Your task to perform on an android device: turn notification dots on Image 0: 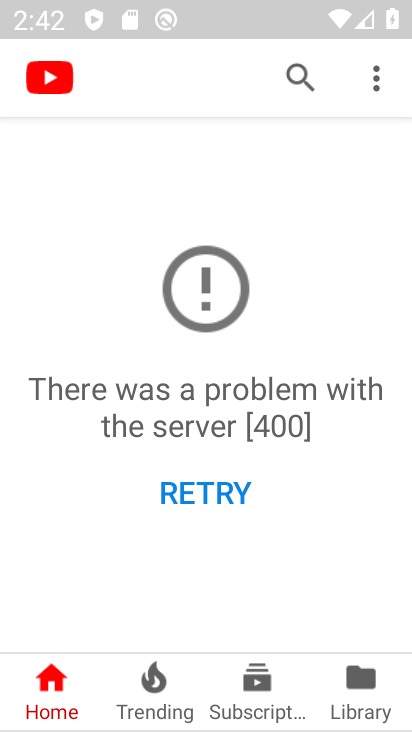
Step 0: press home button
Your task to perform on an android device: turn notification dots on Image 1: 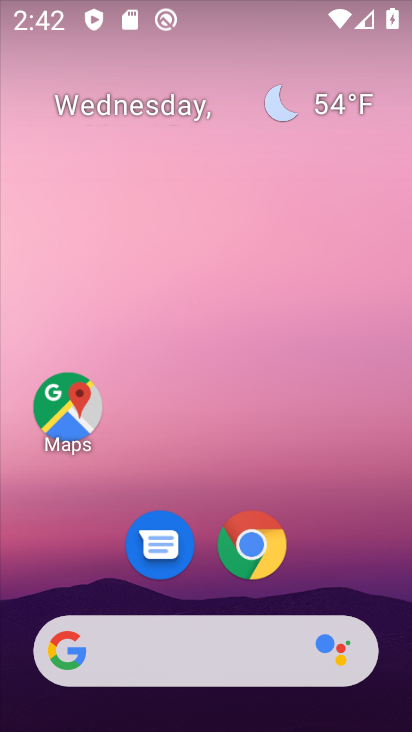
Step 1: drag from (256, 718) to (286, 209)
Your task to perform on an android device: turn notification dots on Image 2: 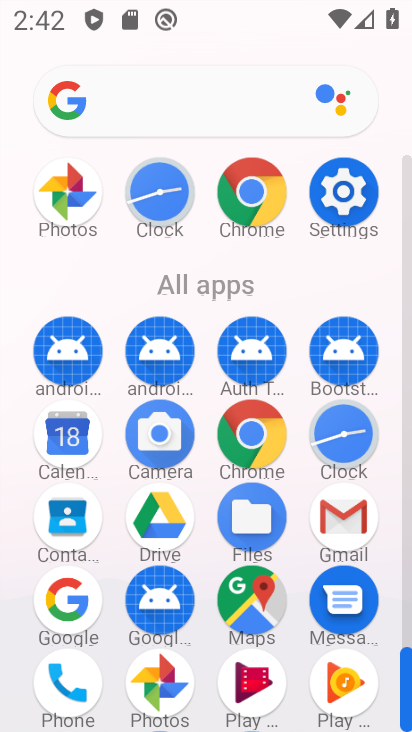
Step 2: click (369, 180)
Your task to perform on an android device: turn notification dots on Image 3: 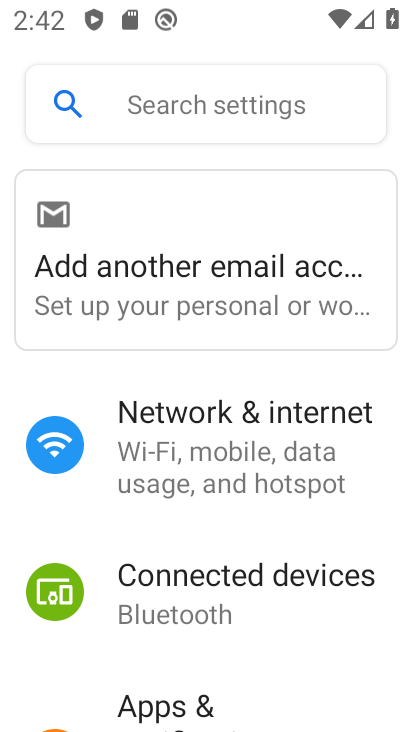
Step 3: click (225, 110)
Your task to perform on an android device: turn notification dots on Image 4: 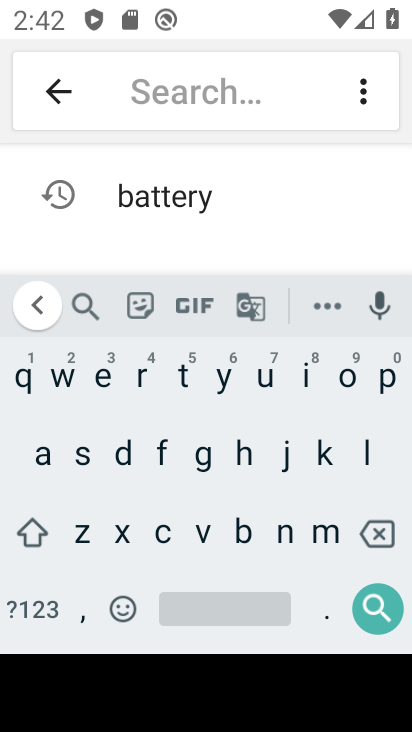
Step 4: click (121, 458)
Your task to perform on an android device: turn notification dots on Image 5: 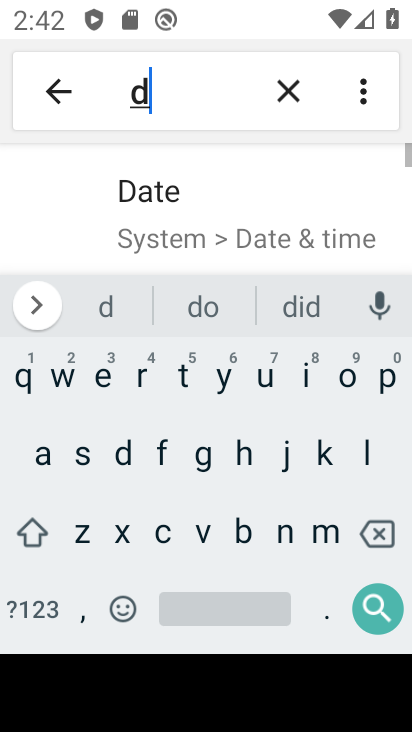
Step 5: click (352, 382)
Your task to perform on an android device: turn notification dots on Image 6: 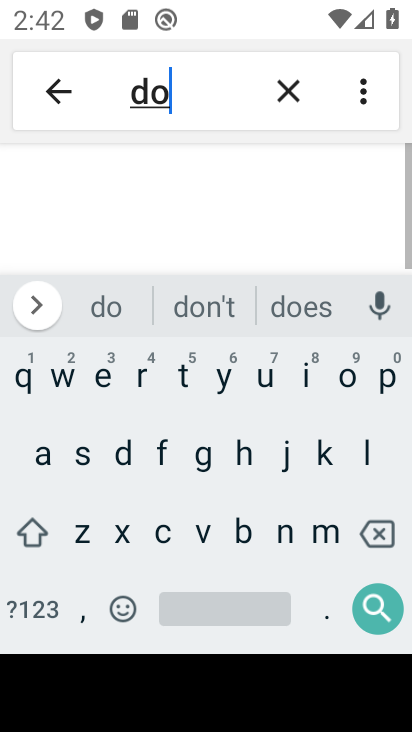
Step 6: click (182, 381)
Your task to perform on an android device: turn notification dots on Image 7: 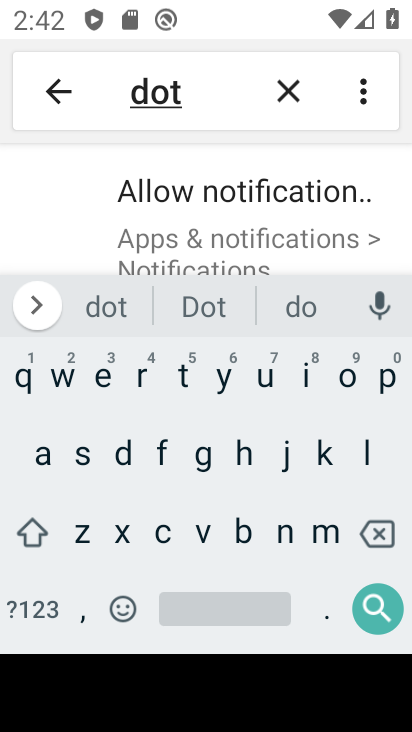
Step 7: press back button
Your task to perform on an android device: turn notification dots on Image 8: 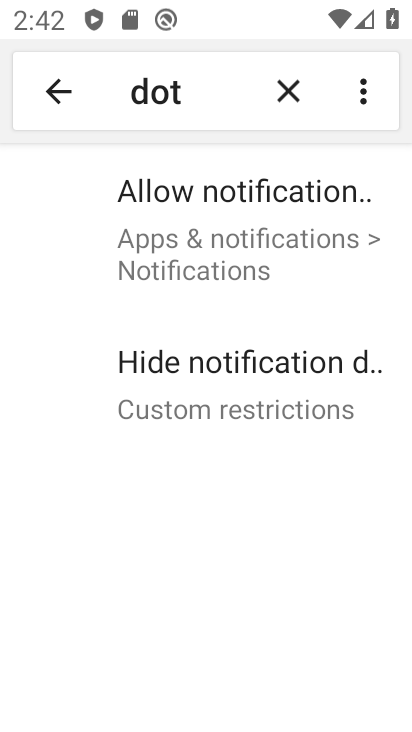
Step 8: click (223, 261)
Your task to perform on an android device: turn notification dots on Image 9: 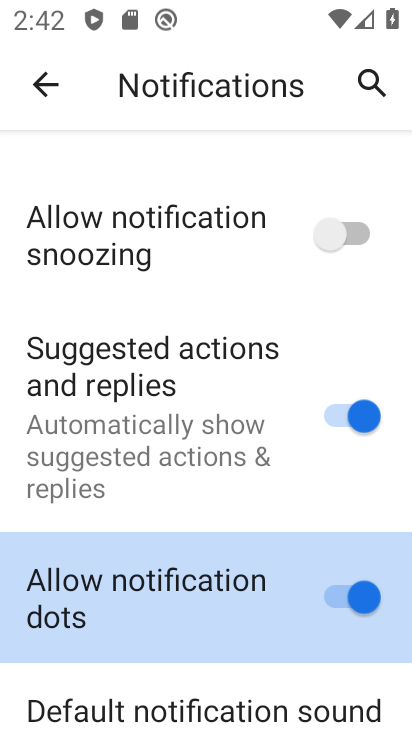
Step 9: click (136, 589)
Your task to perform on an android device: turn notification dots on Image 10: 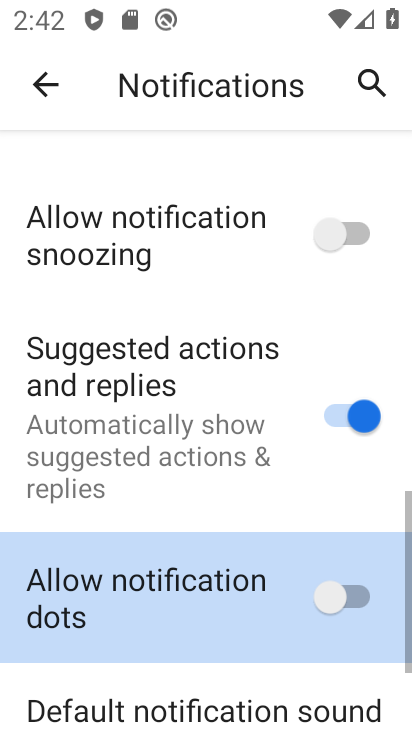
Step 10: click (135, 589)
Your task to perform on an android device: turn notification dots on Image 11: 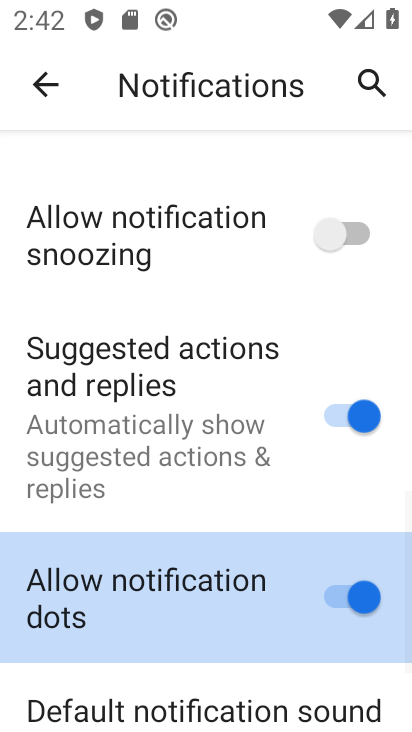
Step 11: task complete